Your task to perform on an android device: What's the weather going to be tomorrow? Image 0: 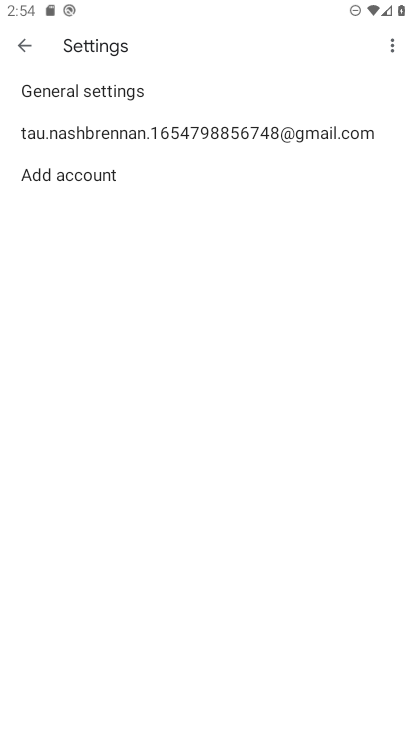
Step 0: press home button
Your task to perform on an android device: What's the weather going to be tomorrow? Image 1: 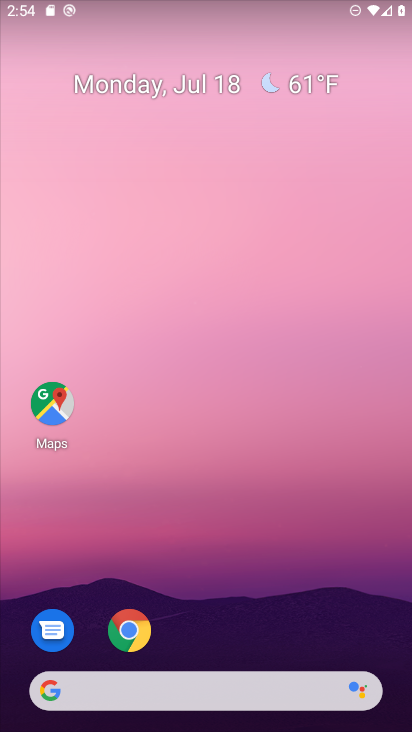
Step 1: click (199, 693)
Your task to perform on an android device: What's the weather going to be tomorrow? Image 2: 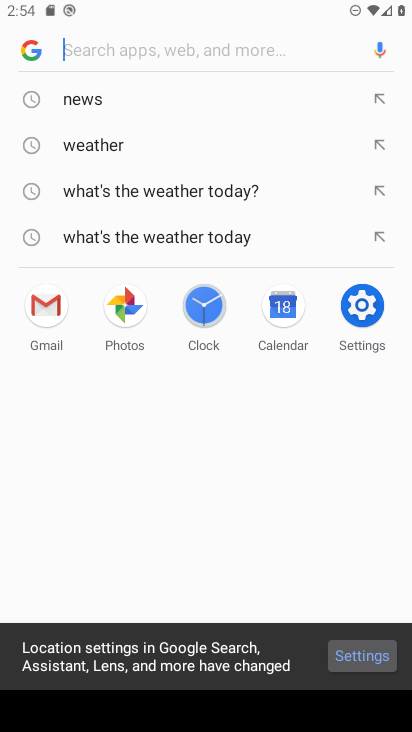
Step 2: click (89, 134)
Your task to perform on an android device: What's the weather going to be tomorrow? Image 3: 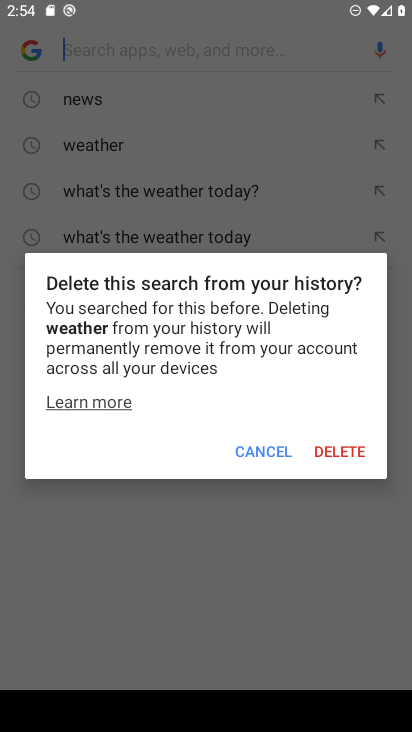
Step 3: click (253, 452)
Your task to perform on an android device: What's the weather going to be tomorrow? Image 4: 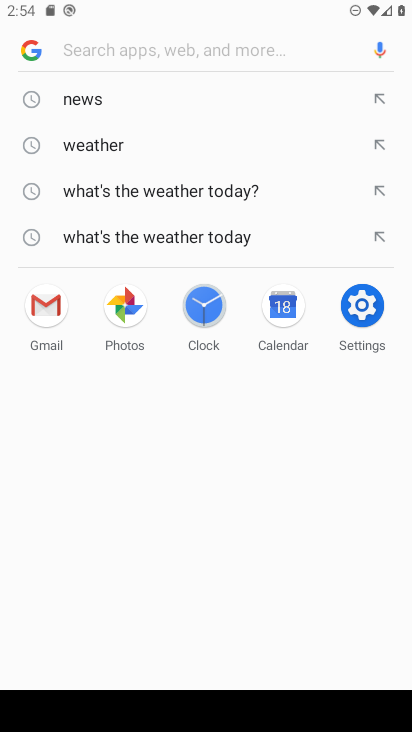
Step 4: click (69, 137)
Your task to perform on an android device: What's the weather going to be tomorrow? Image 5: 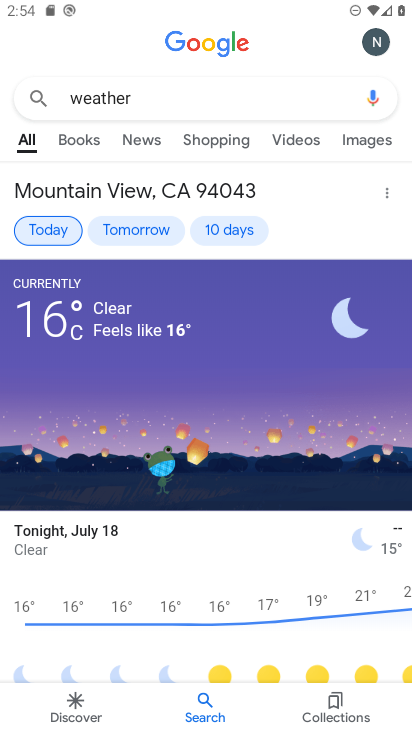
Step 5: click (57, 226)
Your task to perform on an android device: What's the weather going to be tomorrow? Image 6: 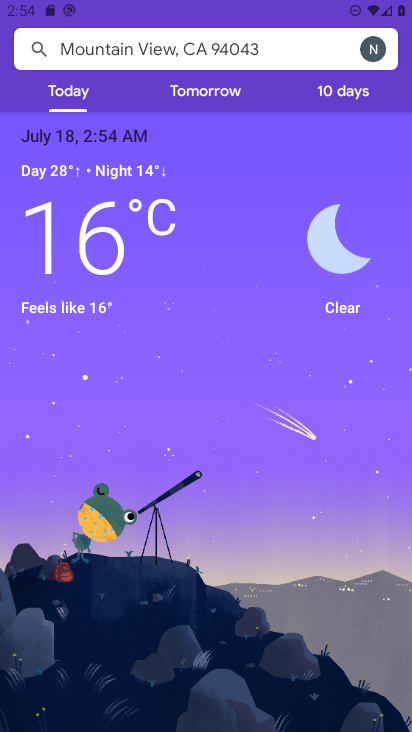
Step 6: click (211, 90)
Your task to perform on an android device: What's the weather going to be tomorrow? Image 7: 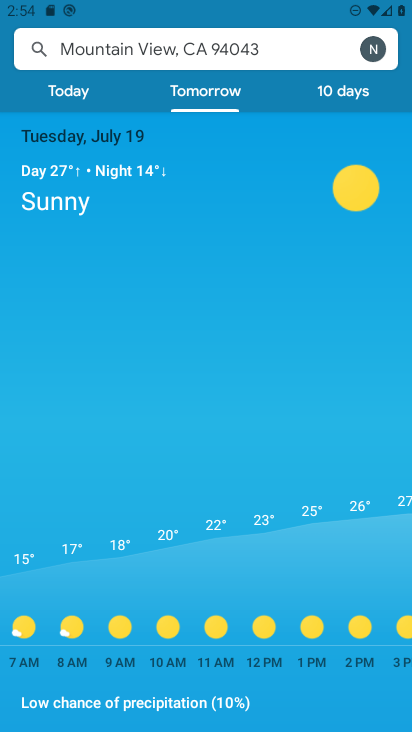
Step 7: task complete